Your task to perform on an android device: open wifi settings Image 0: 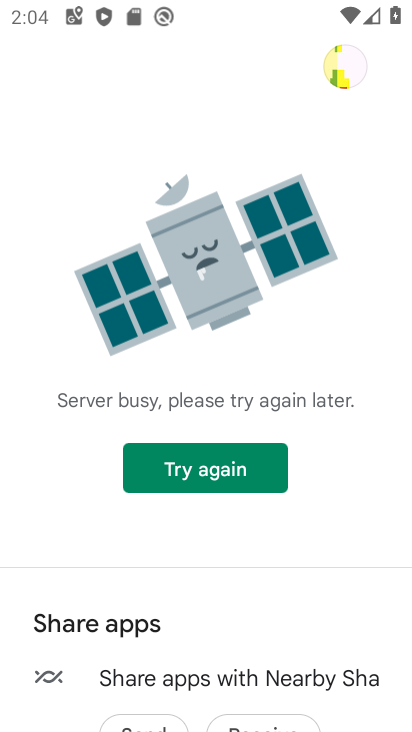
Step 0: press home button
Your task to perform on an android device: open wifi settings Image 1: 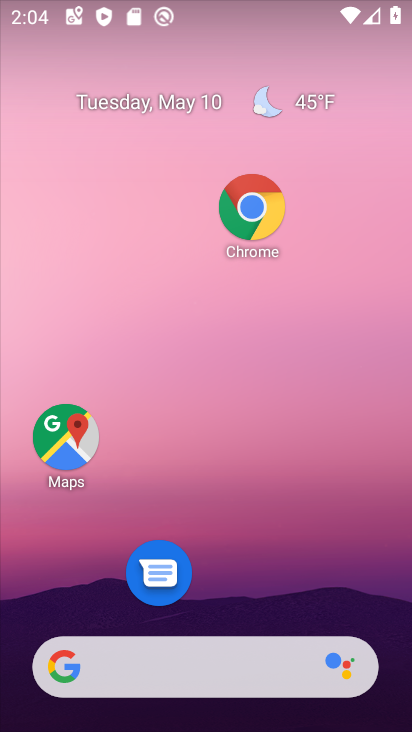
Step 1: drag from (237, 571) to (246, 8)
Your task to perform on an android device: open wifi settings Image 2: 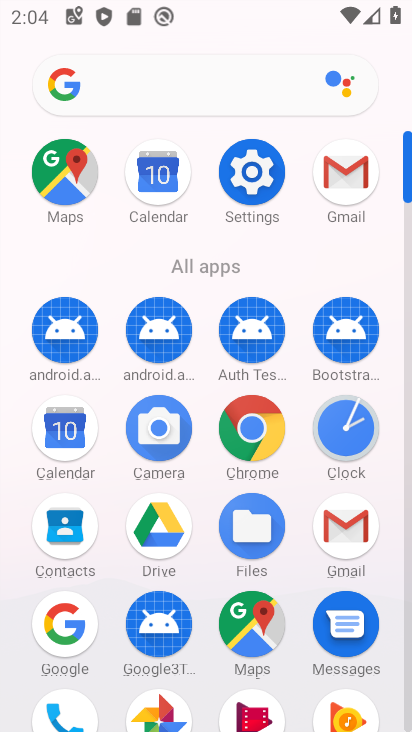
Step 2: click (250, 191)
Your task to perform on an android device: open wifi settings Image 3: 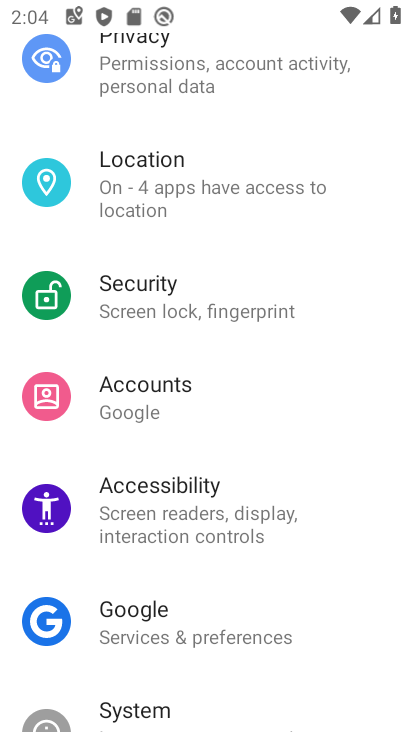
Step 3: drag from (202, 198) to (203, 698)
Your task to perform on an android device: open wifi settings Image 4: 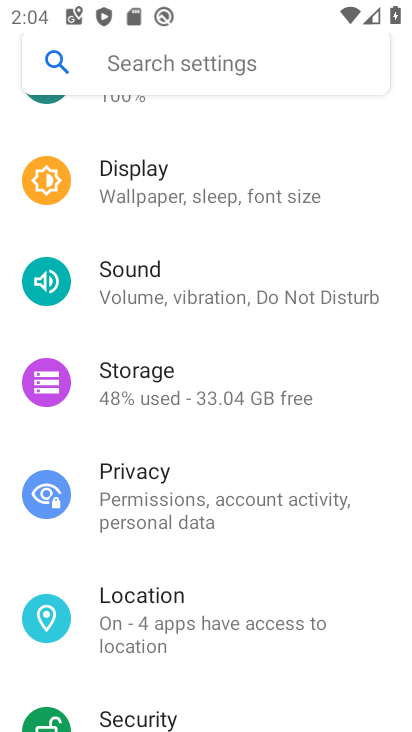
Step 4: drag from (165, 187) to (212, 598)
Your task to perform on an android device: open wifi settings Image 5: 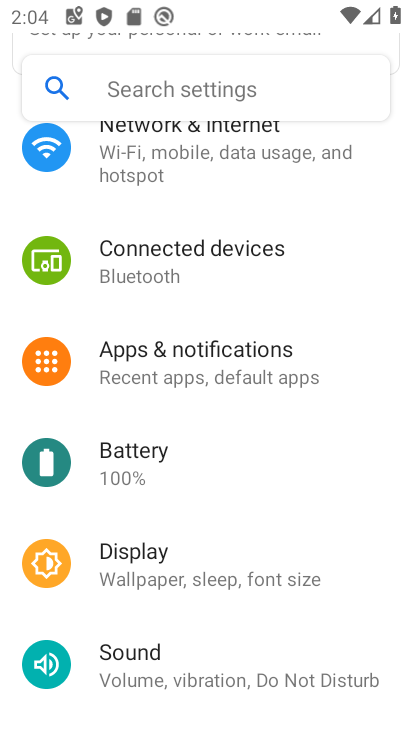
Step 5: drag from (218, 259) to (274, 689)
Your task to perform on an android device: open wifi settings Image 6: 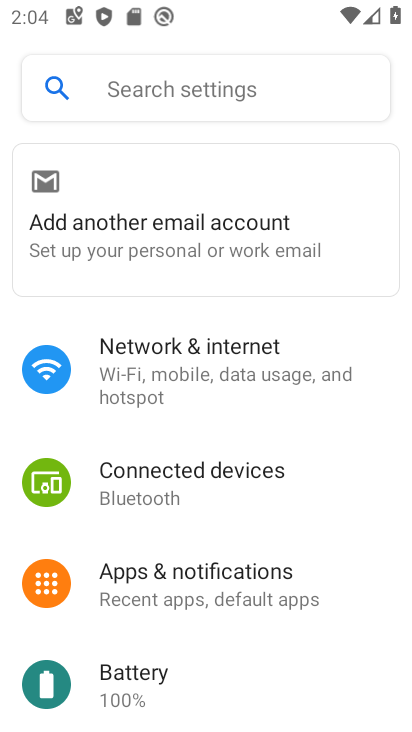
Step 6: click (239, 372)
Your task to perform on an android device: open wifi settings Image 7: 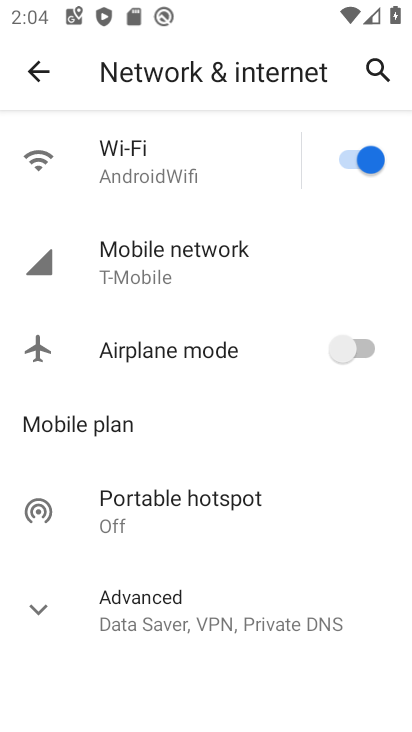
Step 7: click (182, 169)
Your task to perform on an android device: open wifi settings Image 8: 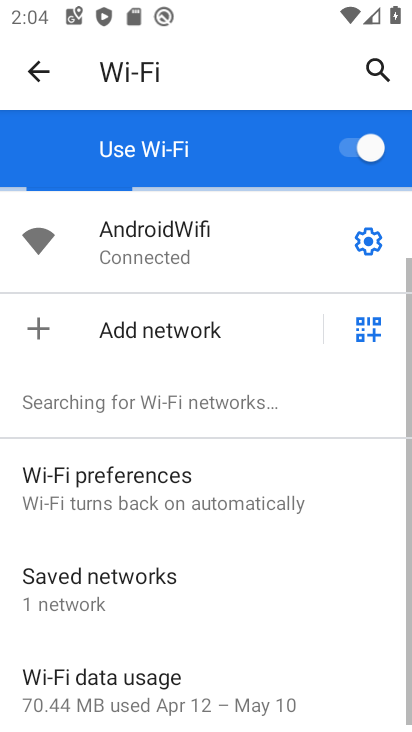
Step 8: task complete